Your task to perform on an android device: Search for pizza restaurants on Maps Image 0: 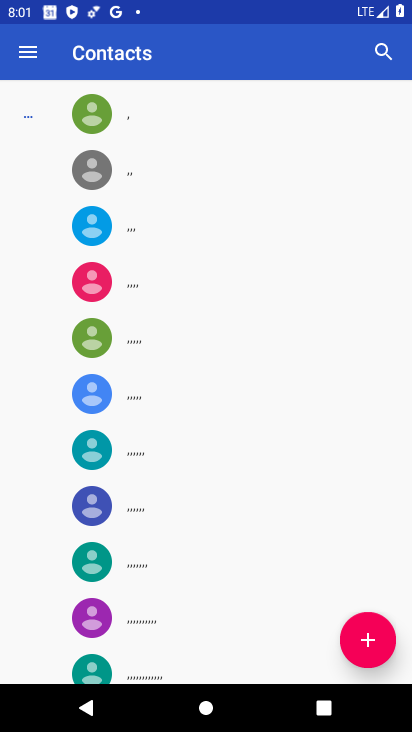
Step 0: press home button
Your task to perform on an android device: Search for pizza restaurants on Maps Image 1: 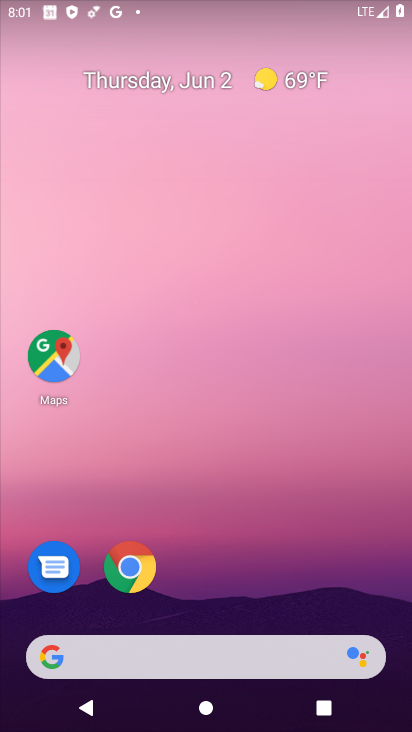
Step 1: click (67, 354)
Your task to perform on an android device: Search for pizza restaurants on Maps Image 2: 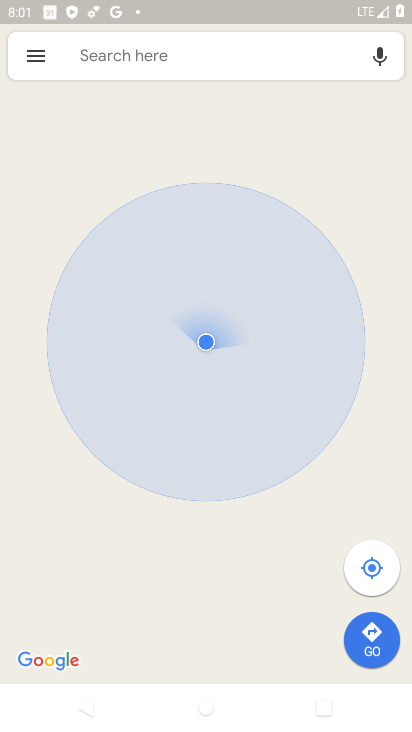
Step 2: click (191, 53)
Your task to perform on an android device: Search for pizza restaurants on Maps Image 3: 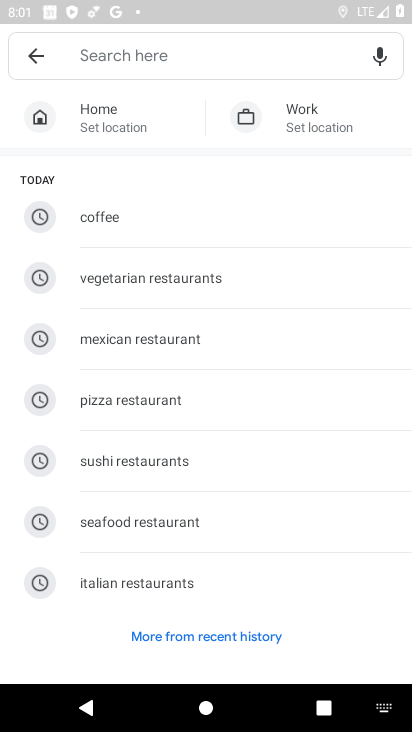
Step 3: type "pizza restaurants"
Your task to perform on an android device: Search for pizza restaurants on Maps Image 4: 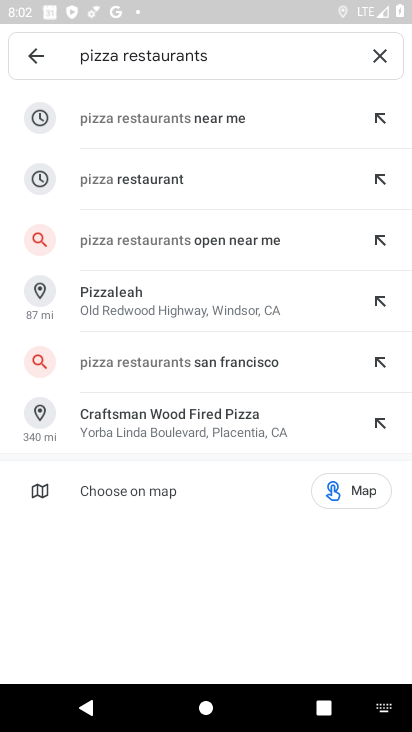
Step 4: press enter
Your task to perform on an android device: Search for pizza restaurants on Maps Image 5: 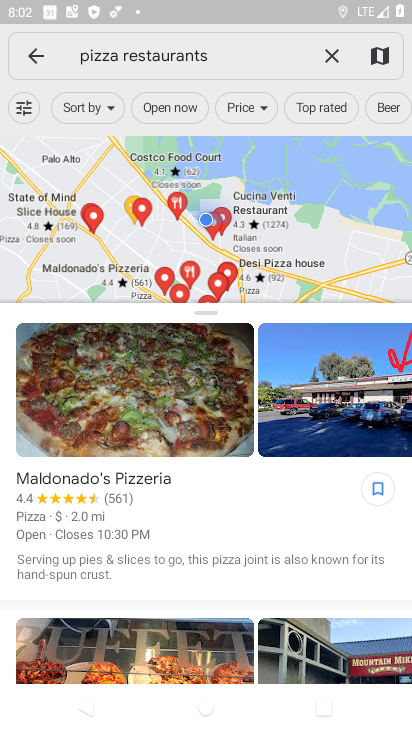
Step 5: task complete